Your task to perform on an android device: turn on bluetooth scan Image 0: 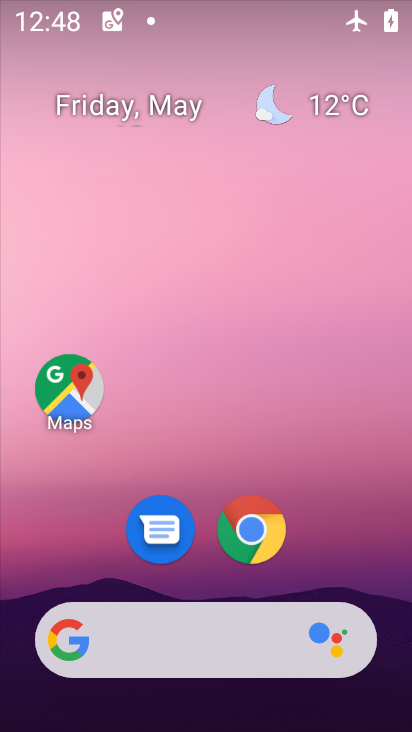
Step 0: drag from (331, 449) to (354, 263)
Your task to perform on an android device: turn on bluetooth scan Image 1: 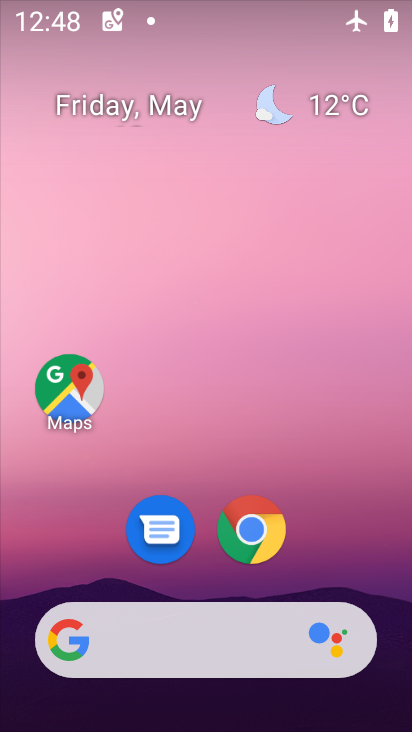
Step 1: drag from (285, 554) to (310, 222)
Your task to perform on an android device: turn on bluetooth scan Image 2: 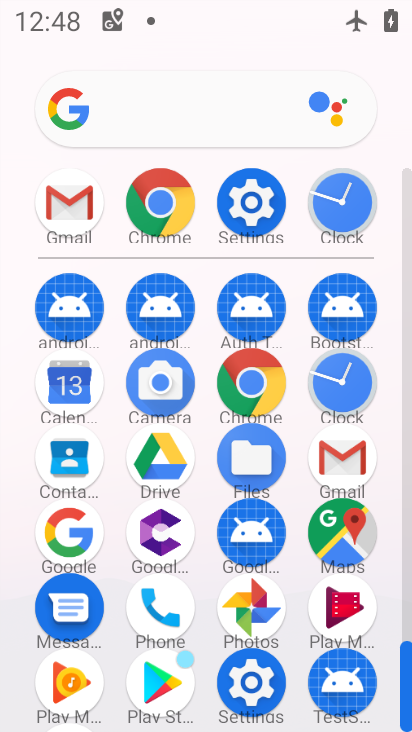
Step 2: click (260, 188)
Your task to perform on an android device: turn on bluetooth scan Image 3: 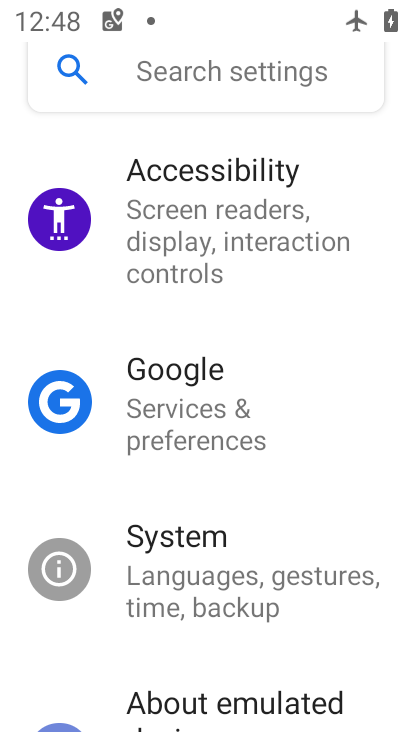
Step 3: click (220, 61)
Your task to perform on an android device: turn on bluetooth scan Image 4: 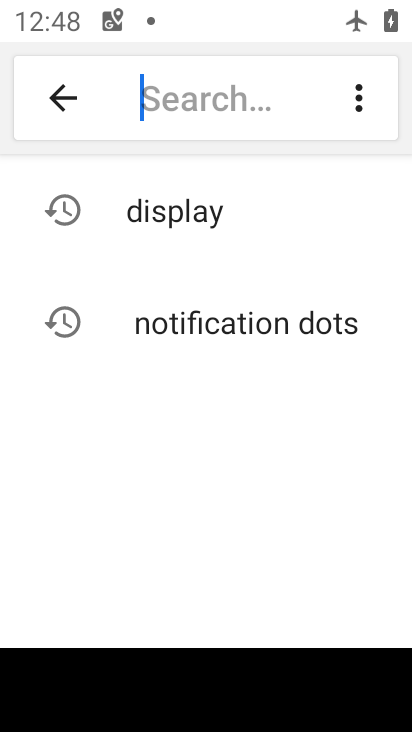
Step 4: click (193, 94)
Your task to perform on an android device: turn on bluetooth scan Image 5: 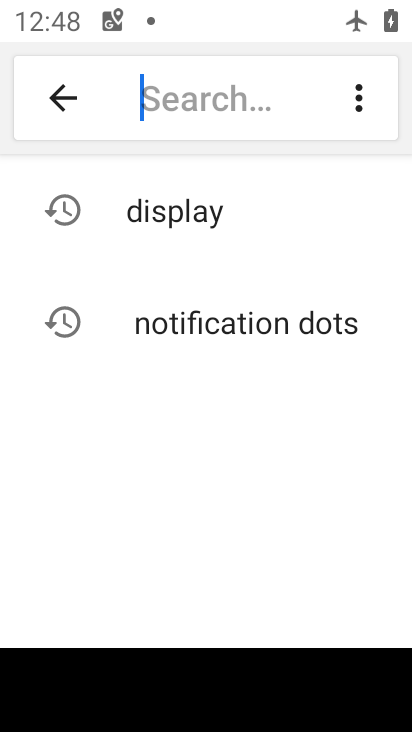
Step 5: type "bluetooth scan"
Your task to perform on an android device: turn on bluetooth scan Image 6: 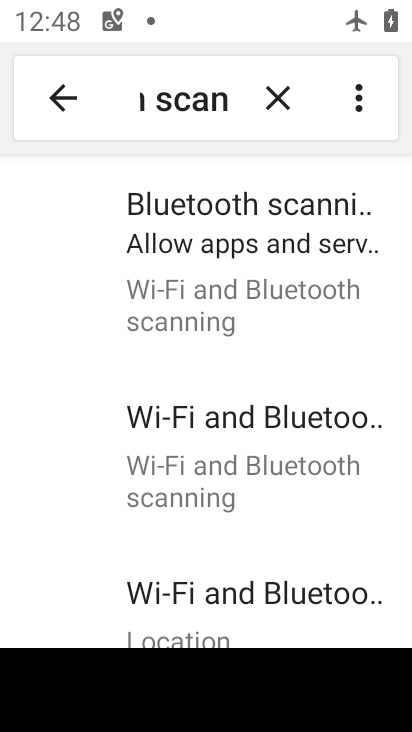
Step 6: click (191, 214)
Your task to perform on an android device: turn on bluetooth scan Image 7: 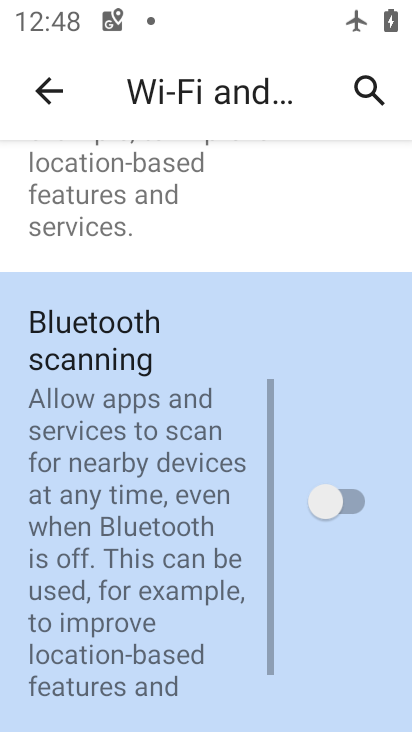
Step 7: click (358, 504)
Your task to perform on an android device: turn on bluetooth scan Image 8: 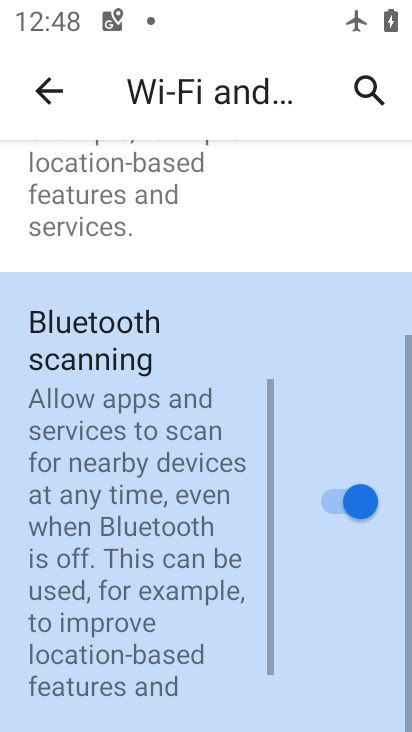
Step 8: task complete